Your task to perform on an android device: Do I have any events this weekend? Image 0: 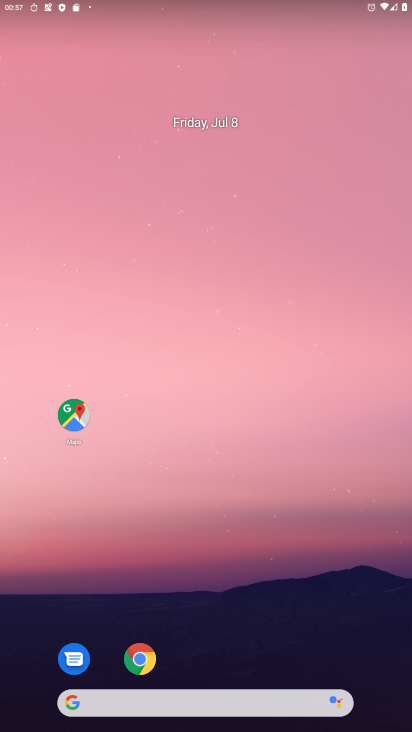
Step 0: click (194, 133)
Your task to perform on an android device: Do I have any events this weekend? Image 1: 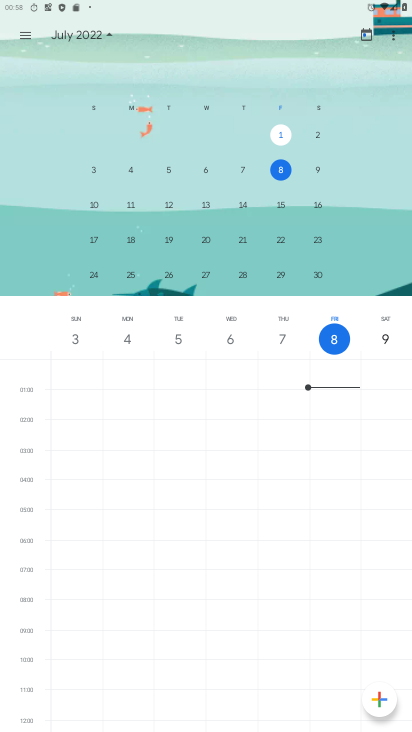
Step 1: click (384, 345)
Your task to perform on an android device: Do I have any events this weekend? Image 2: 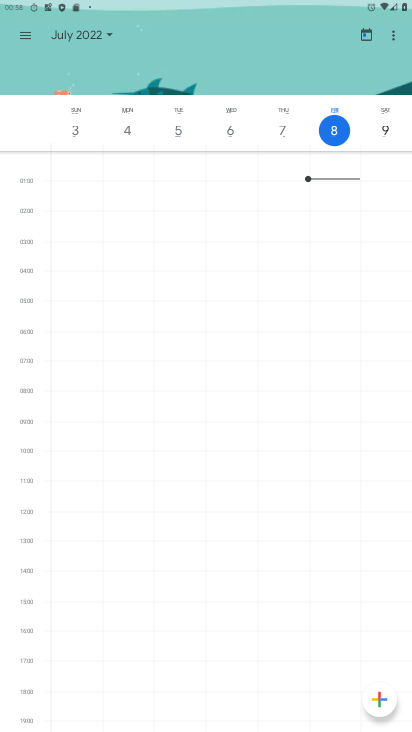
Step 2: click (385, 136)
Your task to perform on an android device: Do I have any events this weekend? Image 3: 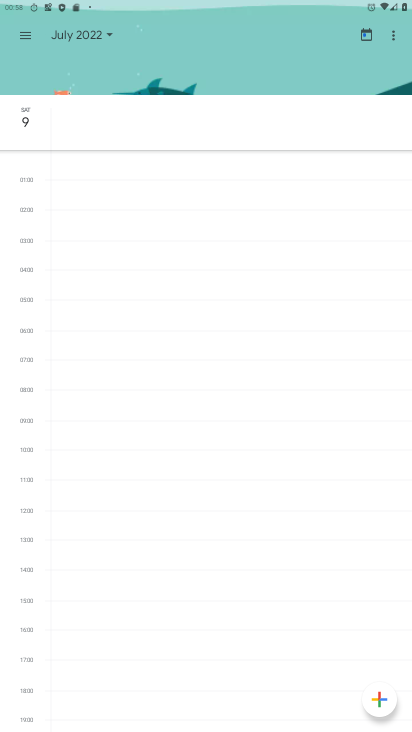
Step 3: click (32, 35)
Your task to perform on an android device: Do I have any events this weekend? Image 4: 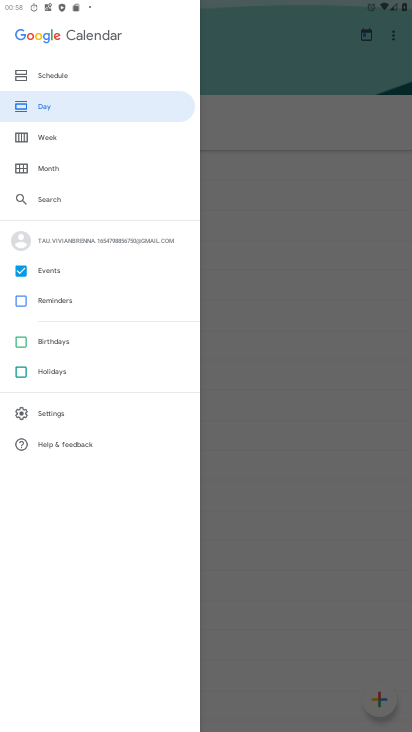
Step 4: click (310, 211)
Your task to perform on an android device: Do I have any events this weekend? Image 5: 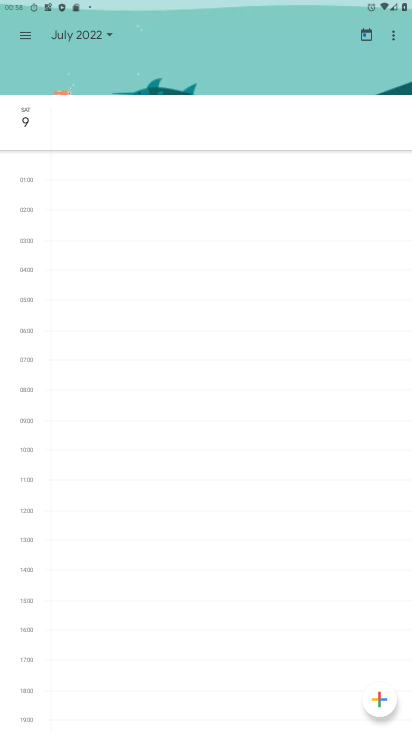
Step 5: task complete